Your task to perform on an android device: Go to notification settings Image 0: 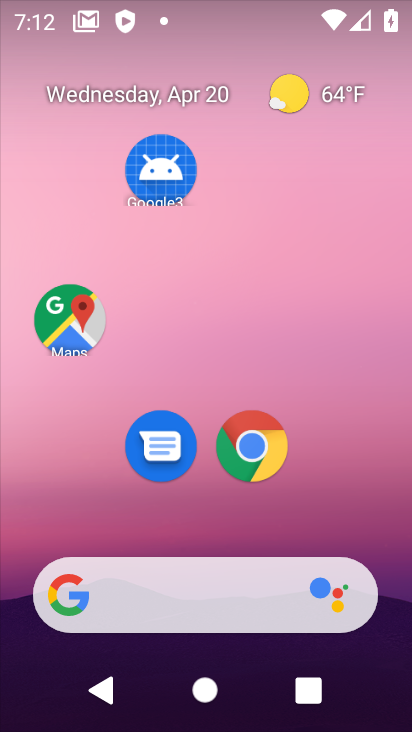
Step 0: drag from (201, 526) to (243, 5)
Your task to perform on an android device: Go to notification settings Image 1: 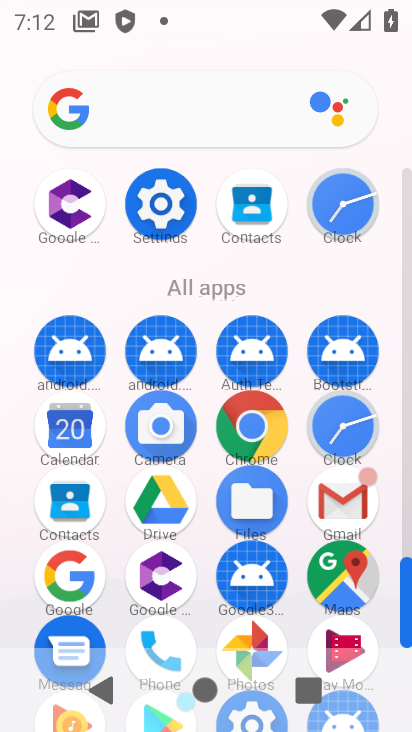
Step 1: click (158, 211)
Your task to perform on an android device: Go to notification settings Image 2: 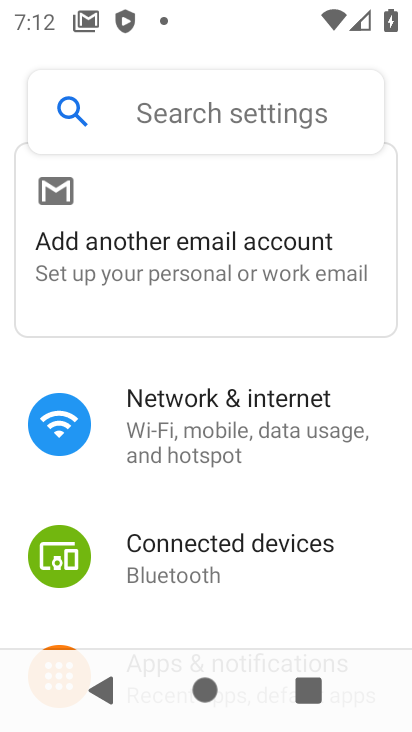
Step 2: drag from (238, 499) to (248, 238)
Your task to perform on an android device: Go to notification settings Image 3: 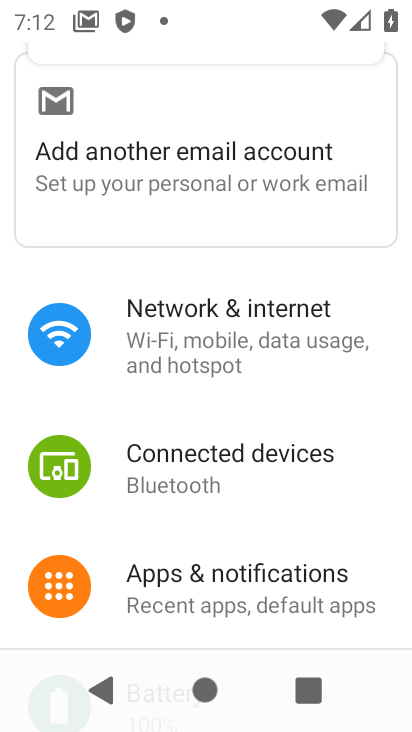
Step 3: click (229, 570)
Your task to perform on an android device: Go to notification settings Image 4: 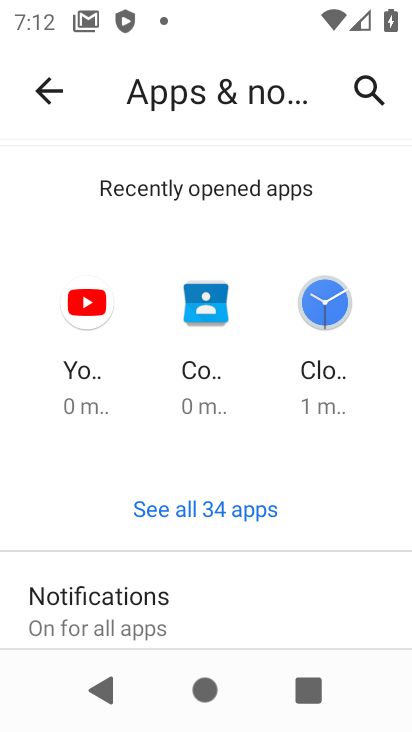
Step 4: drag from (255, 572) to (256, 146)
Your task to perform on an android device: Go to notification settings Image 5: 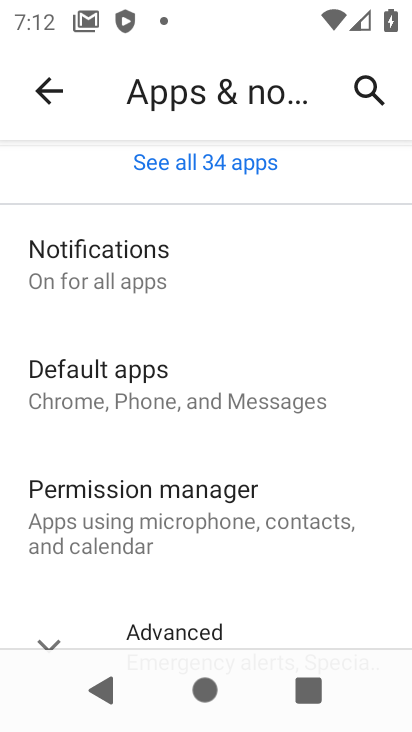
Step 5: click (96, 253)
Your task to perform on an android device: Go to notification settings Image 6: 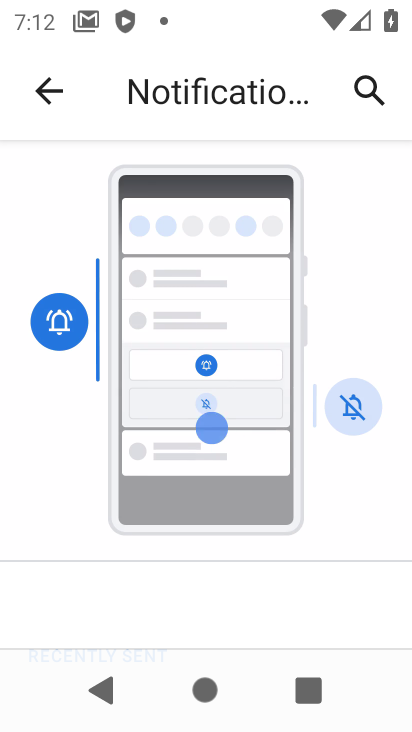
Step 6: task complete